Your task to perform on an android device: What's on my calendar tomorrow? Image 0: 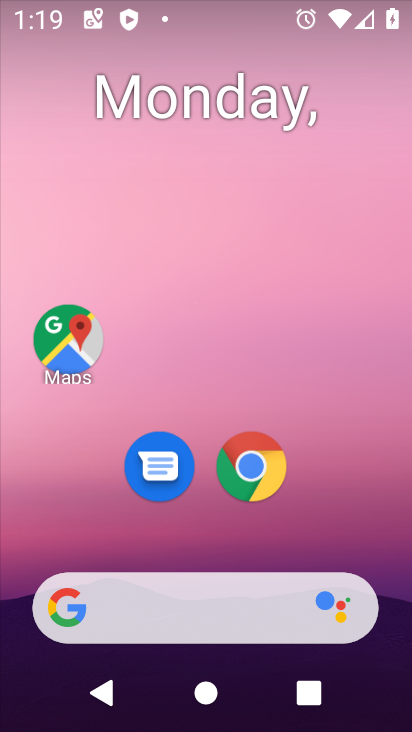
Step 0: drag from (402, 622) to (276, 48)
Your task to perform on an android device: What's on my calendar tomorrow? Image 1: 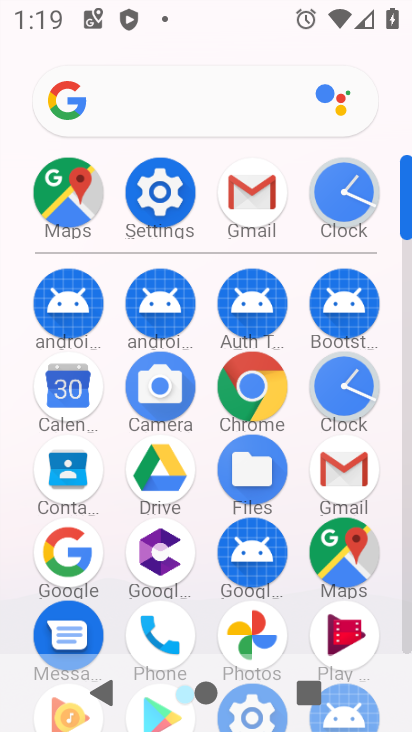
Step 1: click (67, 386)
Your task to perform on an android device: What's on my calendar tomorrow? Image 2: 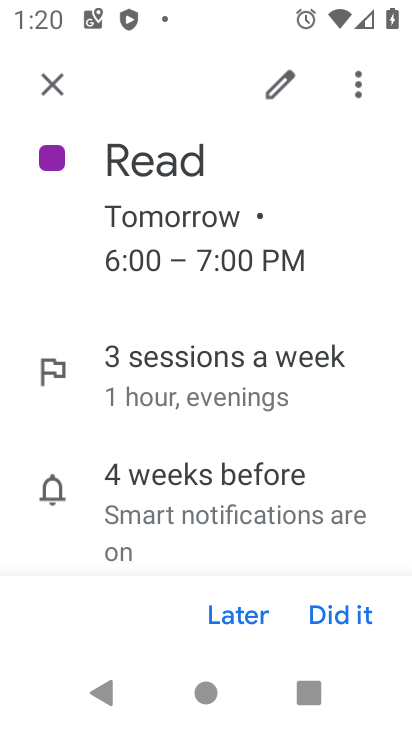
Step 2: task complete